Your task to perform on an android device: refresh tabs in the chrome app Image 0: 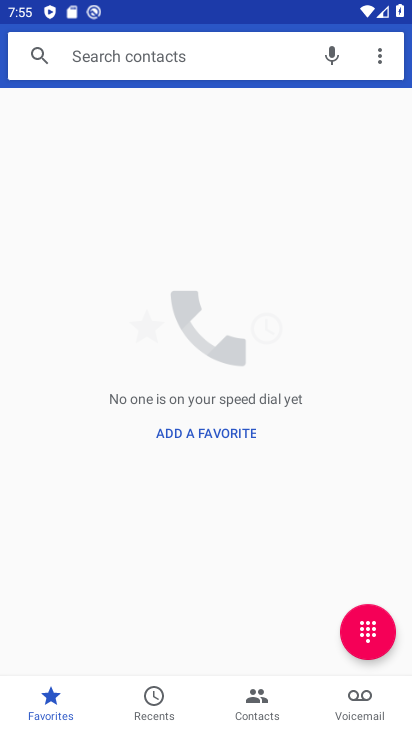
Step 0: press home button
Your task to perform on an android device: refresh tabs in the chrome app Image 1: 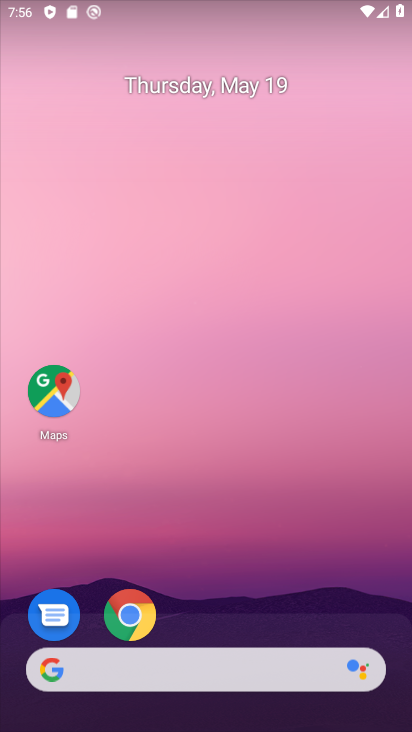
Step 1: click (136, 615)
Your task to perform on an android device: refresh tabs in the chrome app Image 2: 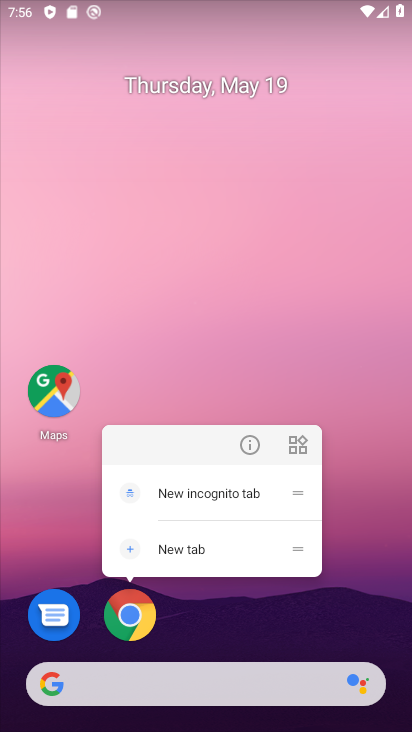
Step 2: click (136, 615)
Your task to perform on an android device: refresh tabs in the chrome app Image 3: 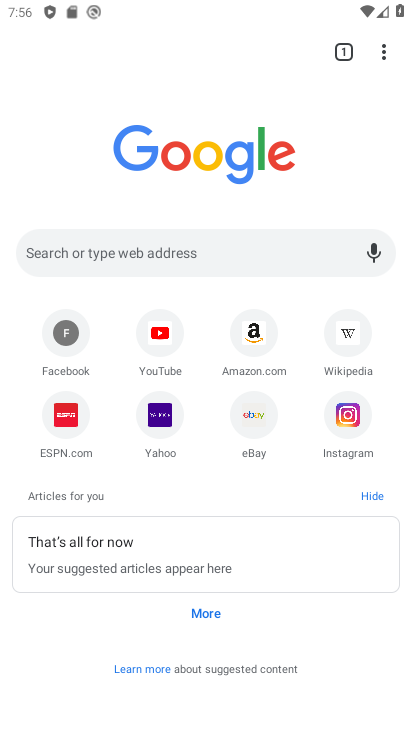
Step 3: click (376, 52)
Your task to perform on an android device: refresh tabs in the chrome app Image 4: 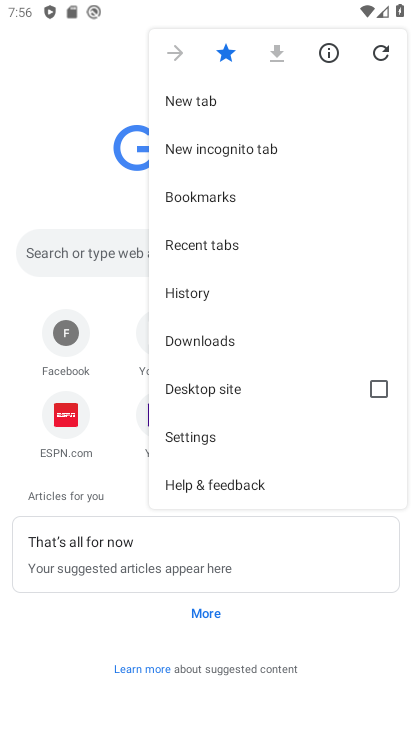
Step 4: click (382, 55)
Your task to perform on an android device: refresh tabs in the chrome app Image 5: 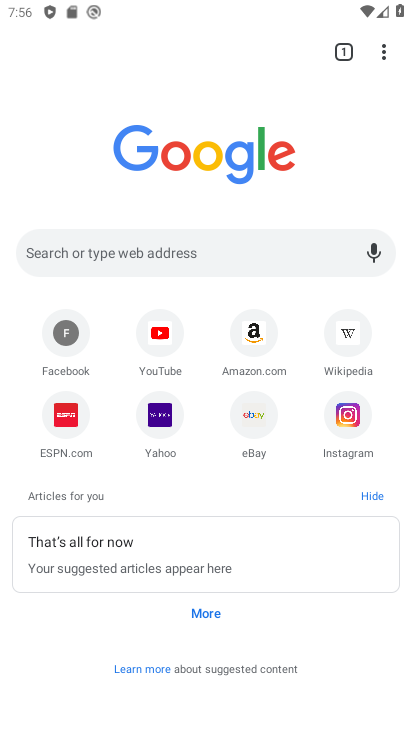
Step 5: task complete